Your task to perform on an android device: Go to Yahoo.com Image 0: 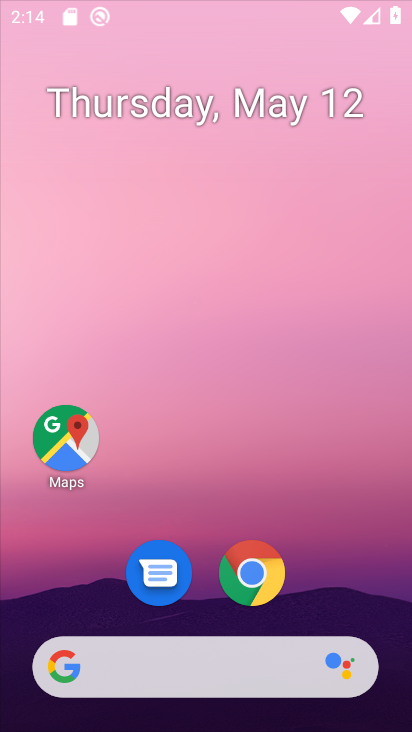
Step 0: click (209, 96)
Your task to perform on an android device: Go to Yahoo.com Image 1: 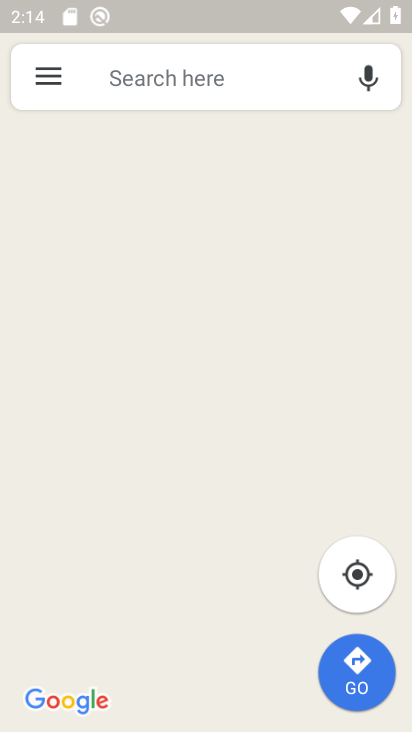
Step 1: drag from (196, 616) to (276, 117)
Your task to perform on an android device: Go to Yahoo.com Image 2: 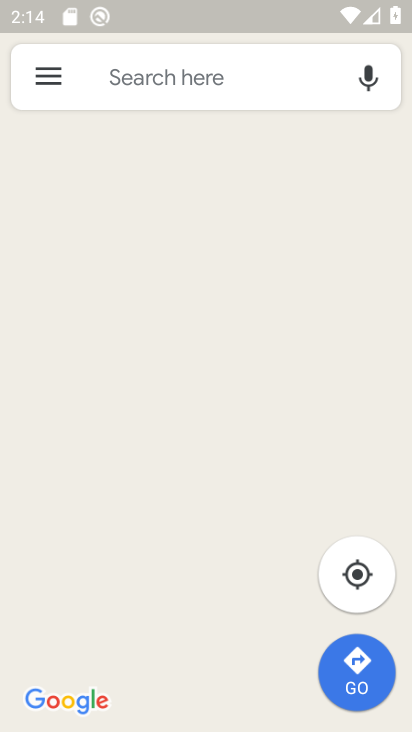
Step 2: press home button
Your task to perform on an android device: Go to Yahoo.com Image 3: 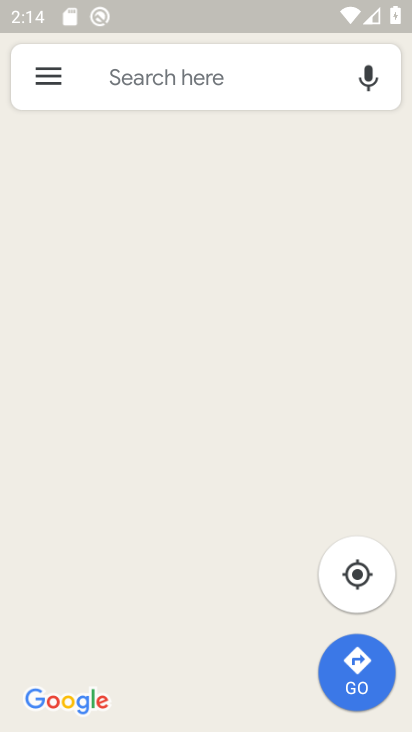
Step 3: click (263, 207)
Your task to perform on an android device: Go to Yahoo.com Image 4: 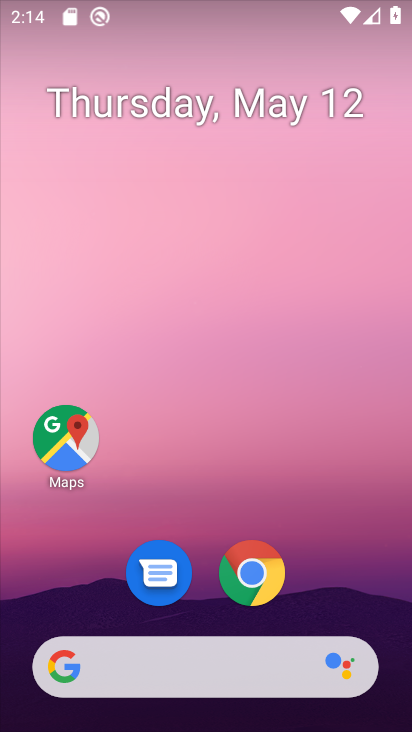
Step 4: drag from (205, 617) to (227, 315)
Your task to perform on an android device: Go to Yahoo.com Image 5: 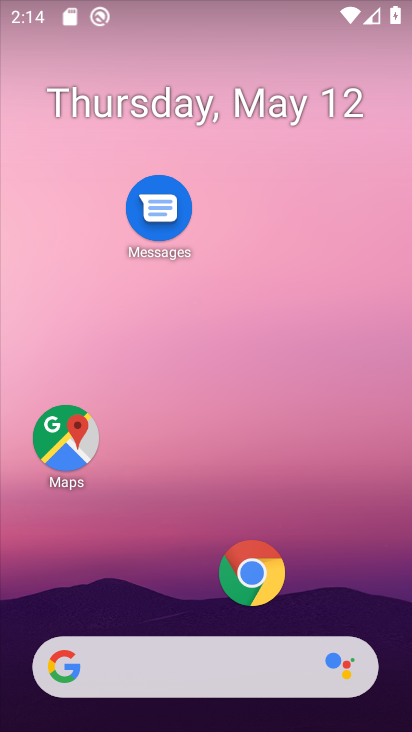
Step 5: drag from (178, 605) to (213, 160)
Your task to perform on an android device: Go to Yahoo.com Image 6: 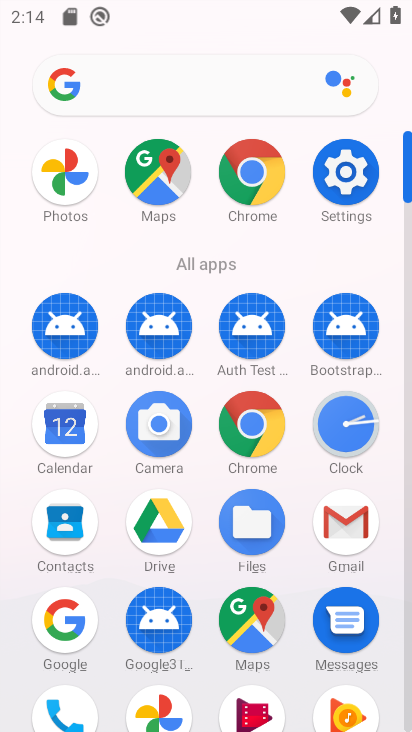
Step 6: click (198, 71)
Your task to perform on an android device: Go to Yahoo.com Image 7: 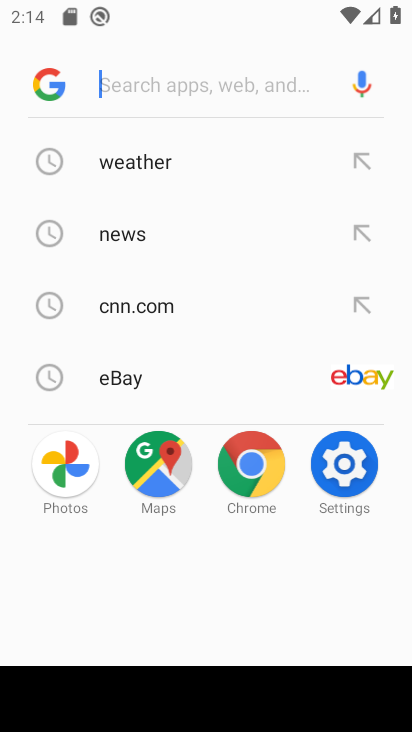
Step 7: type "yahoo.com"
Your task to perform on an android device: Go to Yahoo.com Image 8: 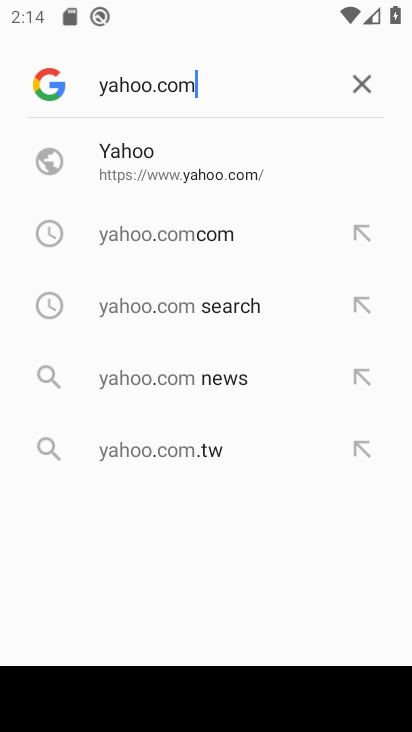
Step 8: click (173, 162)
Your task to perform on an android device: Go to Yahoo.com Image 9: 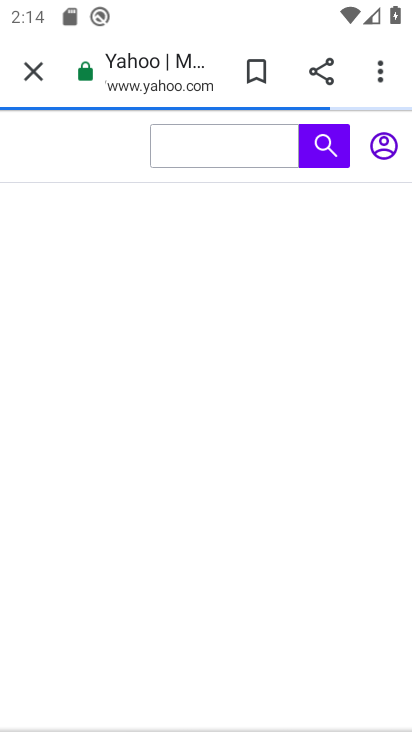
Step 9: task complete